Your task to perform on an android device: Go to Reddit.com Image 0: 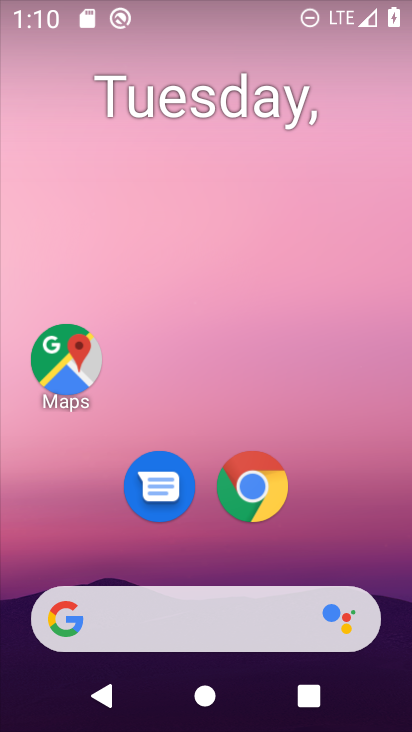
Step 0: click (257, 478)
Your task to perform on an android device: Go to Reddit.com Image 1: 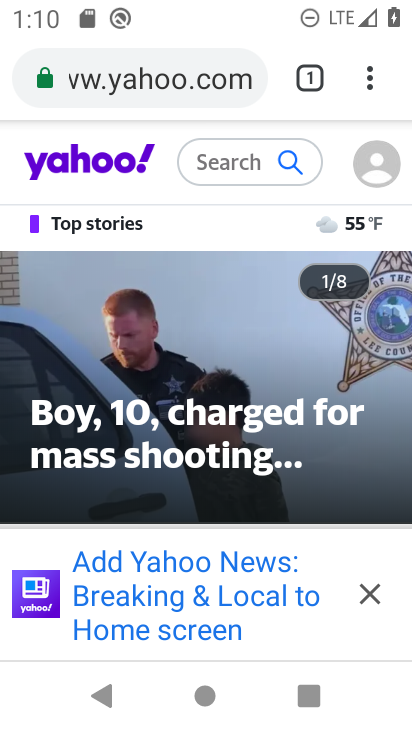
Step 1: click (310, 74)
Your task to perform on an android device: Go to Reddit.com Image 2: 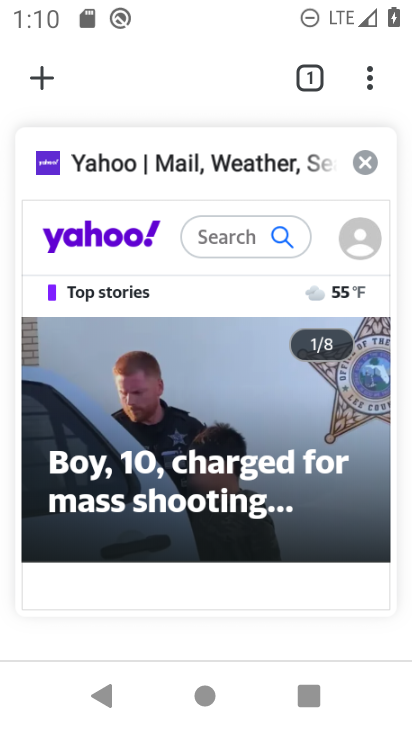
Step 2: click (373, 159)
Your task to perform on an android device: Go to Reddit.com Image 3: 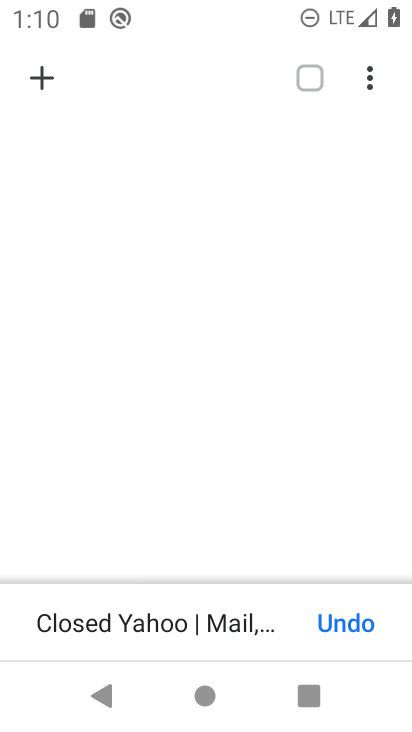
Step 3: click (34, 81)
Your task to perform on an android device: Go to Reddit.com Image 4: 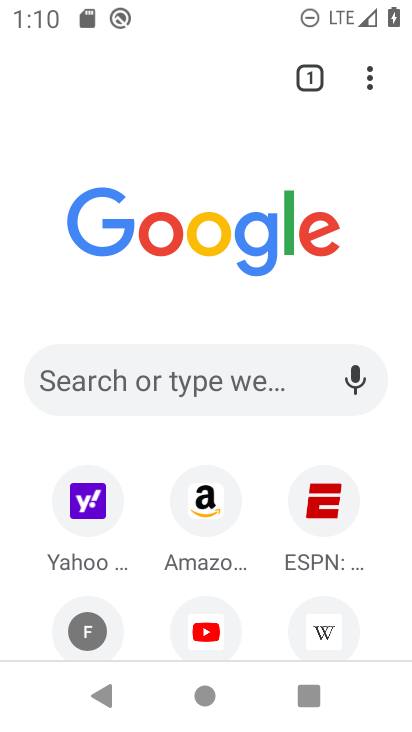
Step 4: click (214, 390)
Your task to perform on an android device: Go to Reddit.com Image 5: 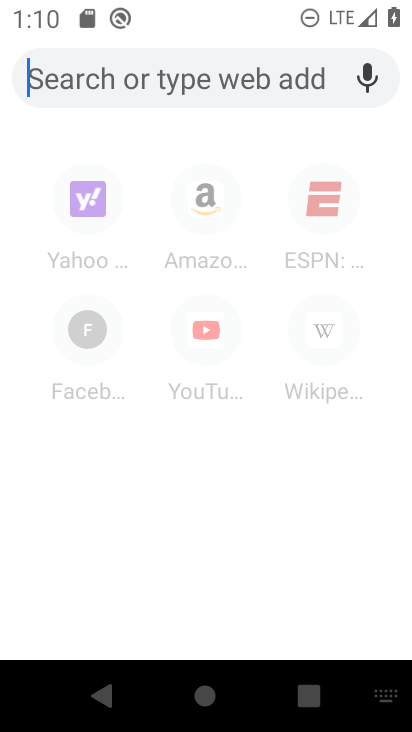
Step 5: type "Reddit.com"
Your task to perform on an android device: Go to Reddit.com Image 6: 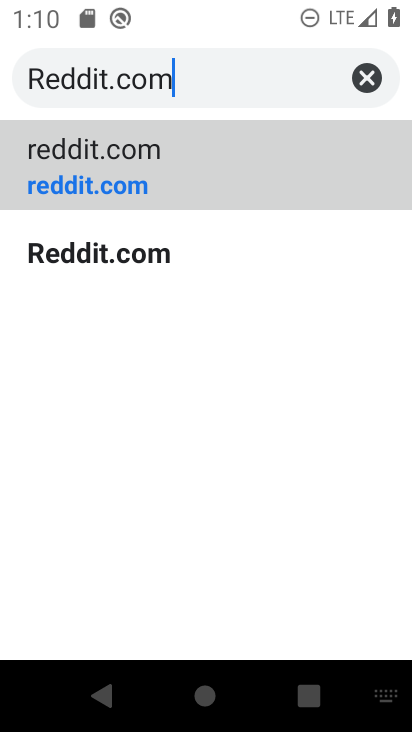
Step 6: type ""
Your task to perform on an android device: Go to Reddit.com Image 7: 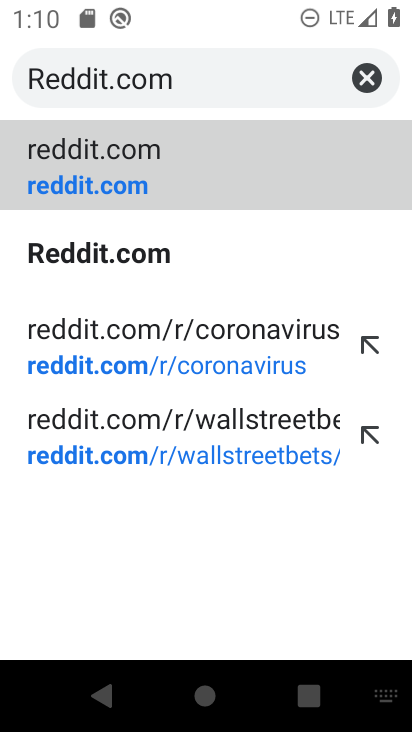
Step 7: click (66, 157)
Your task to perform on an android device: Go to Reddit.com Image 8: 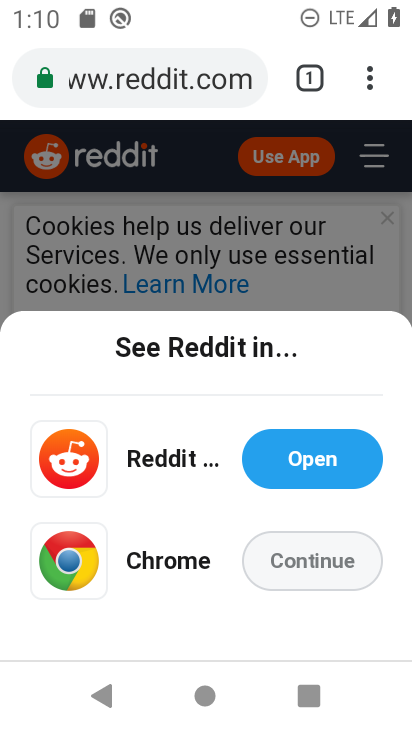
Step 8: task complete